Your task to perform on an android device: Open Reddit.com Image 0: 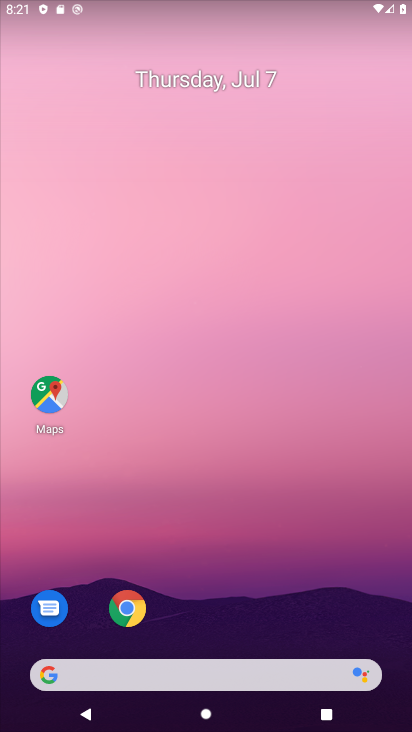
Step 0: click (128, 604)
Your task to perform on an android device: Open Reddit.com Image 1: 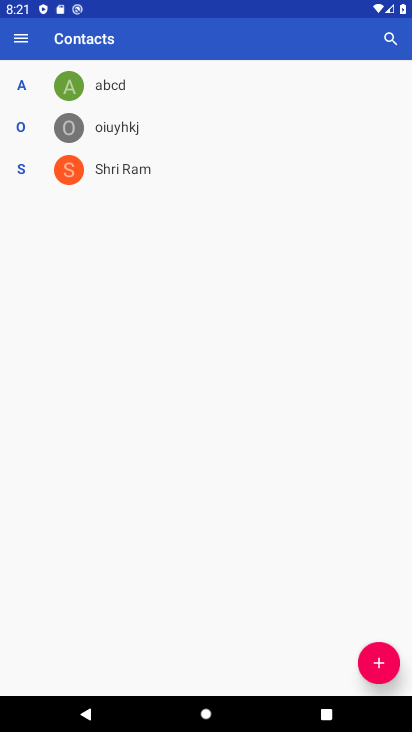
Step 1: press home button
Your task to perform on an android device: Open Reddit.com Image 2: 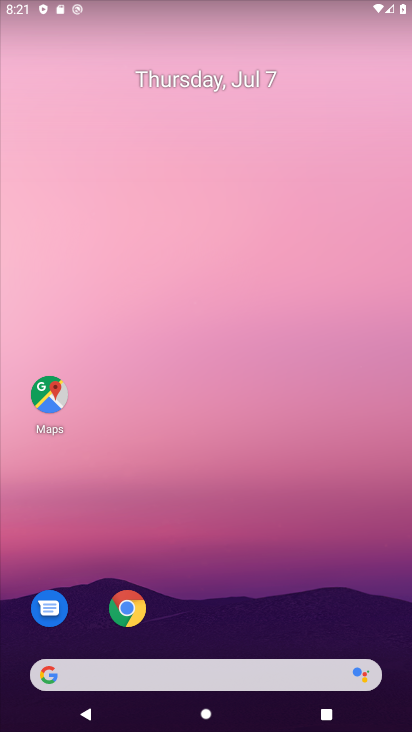
Step 2: click (128, 624)
Your task to perform on an android device: Open Reddit.com Image 3: 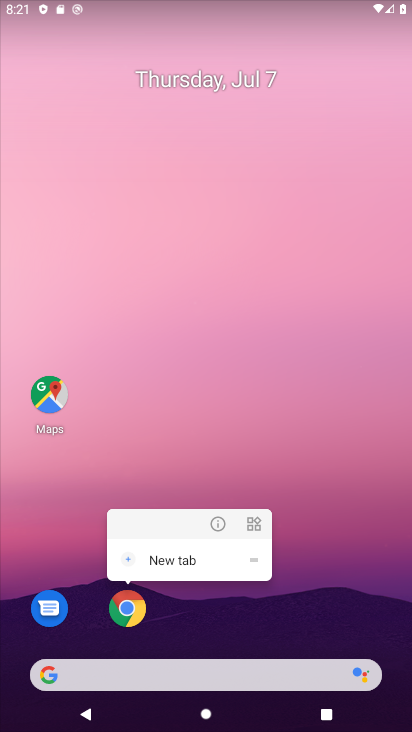
Step 3: click (132, 601)
Your task to perform on an android device: Open Reddit.com Image 4: 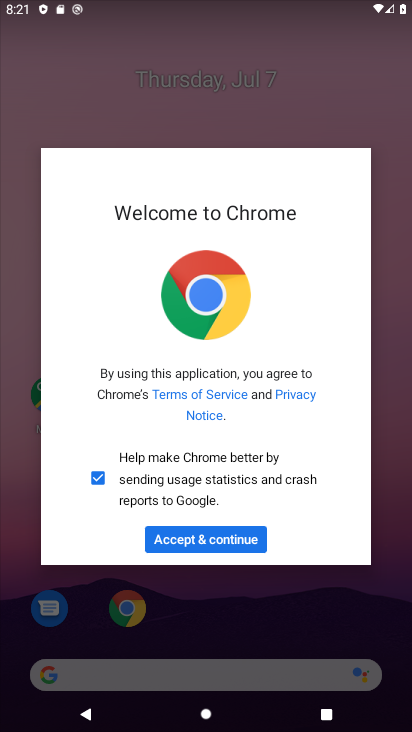
Step 4: click (208, 540)
Your task to perform on an android device: Open Reddit.com Image 5: 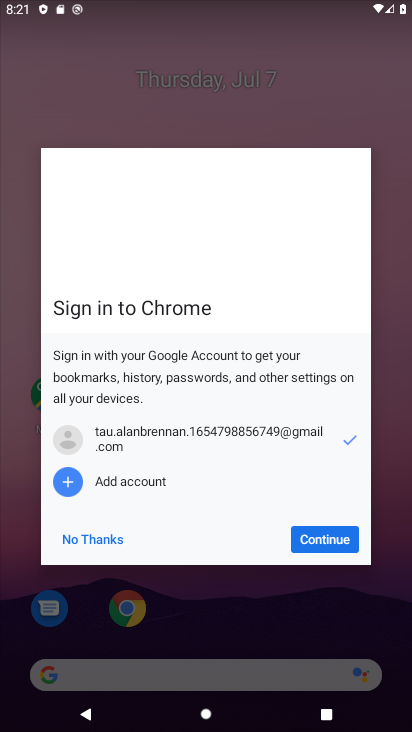
Step 5: click (338, 550)
Your task to perform on an android device: Open Reddit.com Image 6: 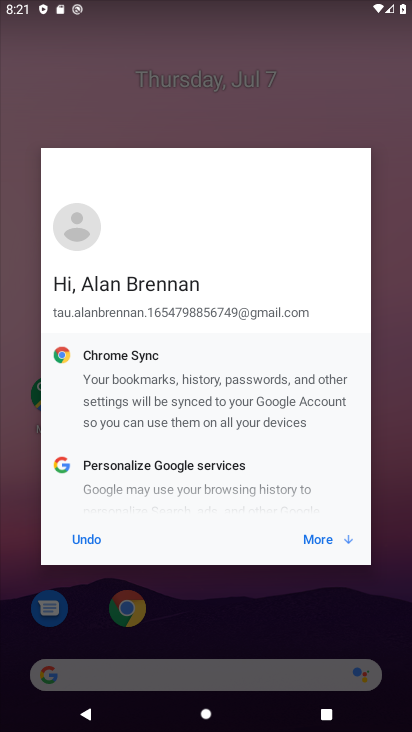
Step 6: click (324, 544)
Your task to perform on an android device: Open Reddit.com Image 7: 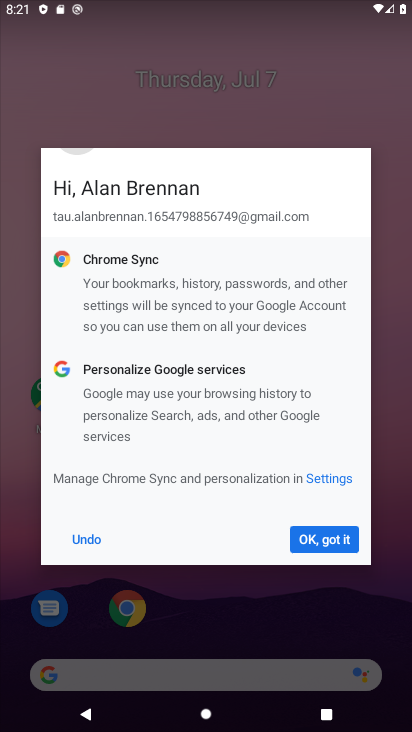
Step 7: click (322, 540)
Your task to perform on an android device: Open Reddit.com Image 8: 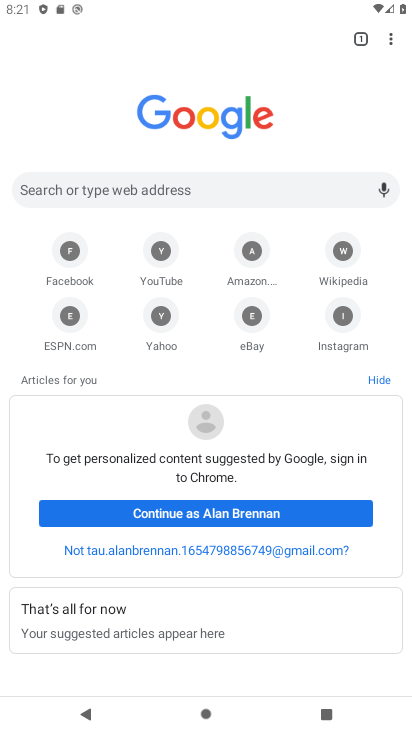
Step 8: click (219, 43)
Your task to perform on an android device: Open Reddit.com Image 9: 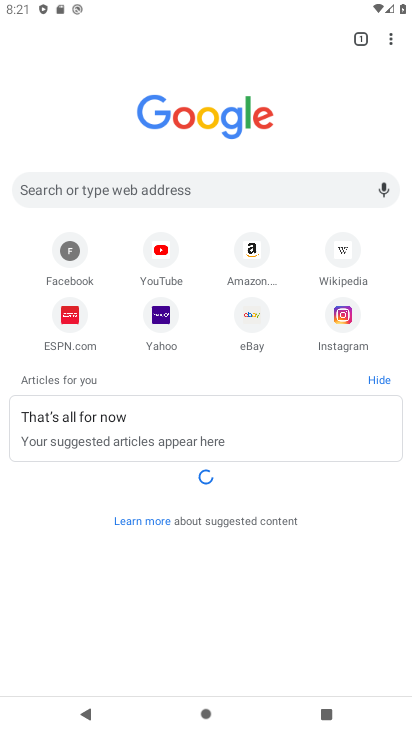
Step 9: click (196, 186)
Your task to perform on an android device: Open Reddit.com Image 10: 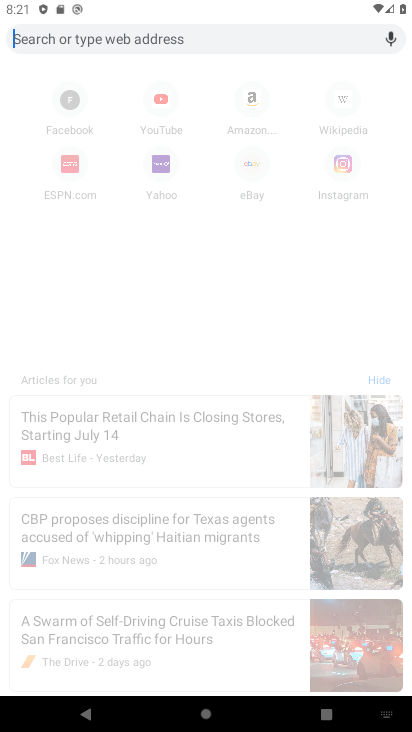
Step 10: type "reddit.com"
Your task to perform on an android device: Open Reddit.com Image 11: 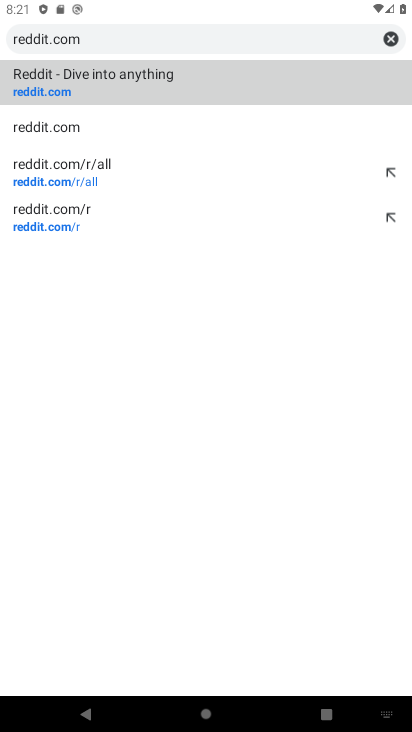
Step 11: click (235, 91)
Your task to perform on an android device: Open Reddit.com Image 12: 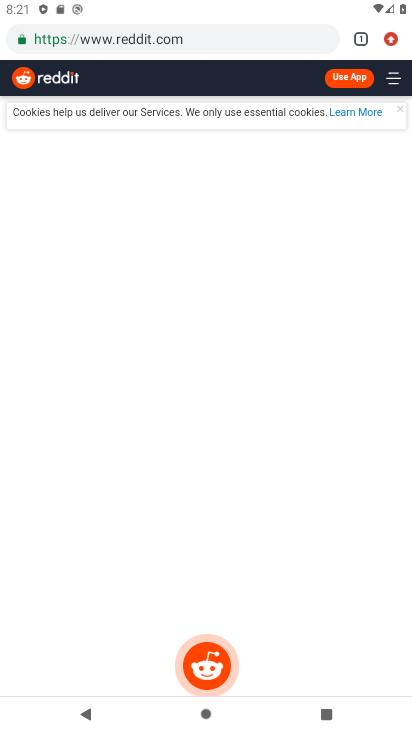
Step 12: task complete